Your task to perform on an android device: What's on my calendar today? Image 0: 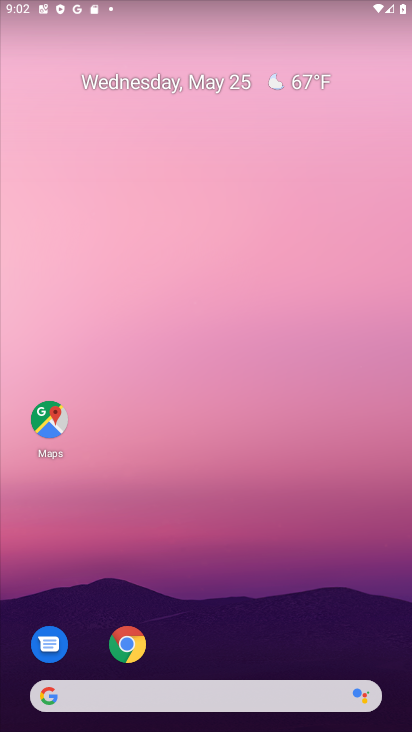
Step 0: drag from (213, 654) to (205, 70)
Your task to perform on an android device: What's on my calendar today? Image 1: 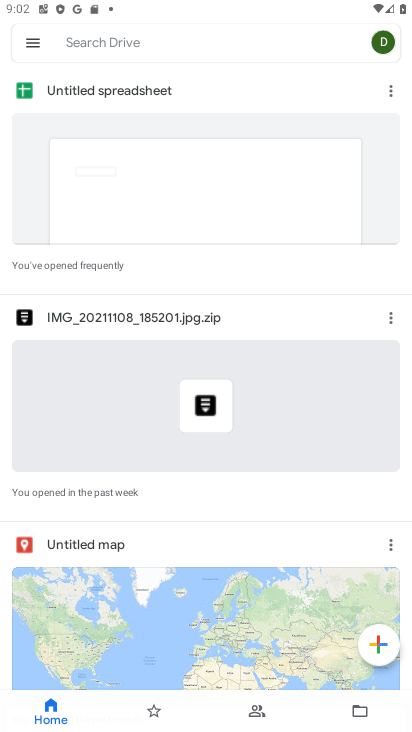
Step 1: press home button
Your task to perform on an android device: What's on my calendar today? Image 2: 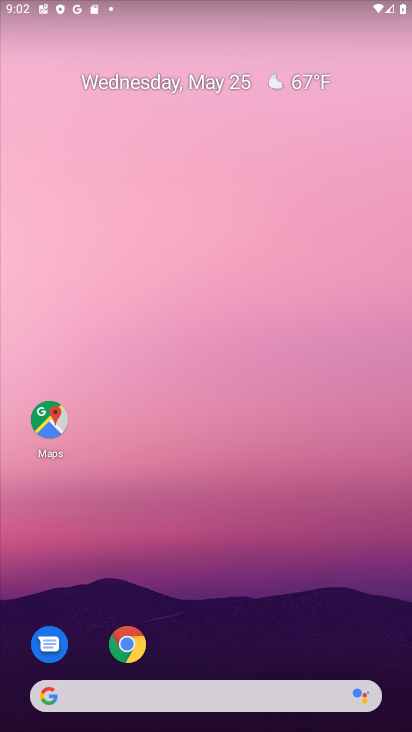
Step 2: drag from (219, 659) to (244, 102)
Your task to perform on an android device: What's on my calendar today? Image 3: 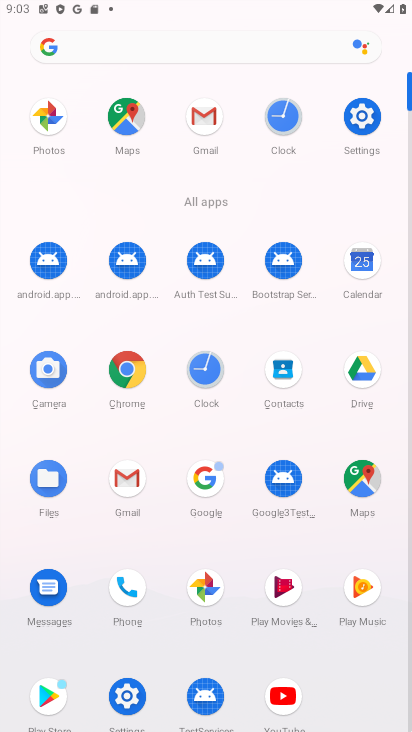
Step 3: click (363, 260)
Your task to perform on an android device: What's on my calendar today? Image 4: 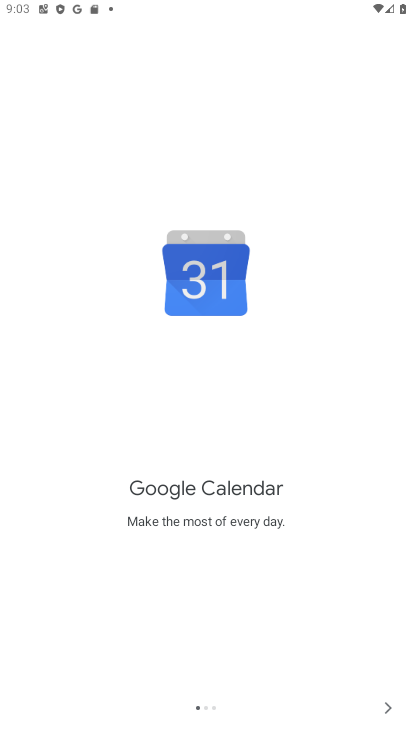
Step 4: click (379, 704)
Your task to perform on an android device: What's on my calendar today? Image 5: 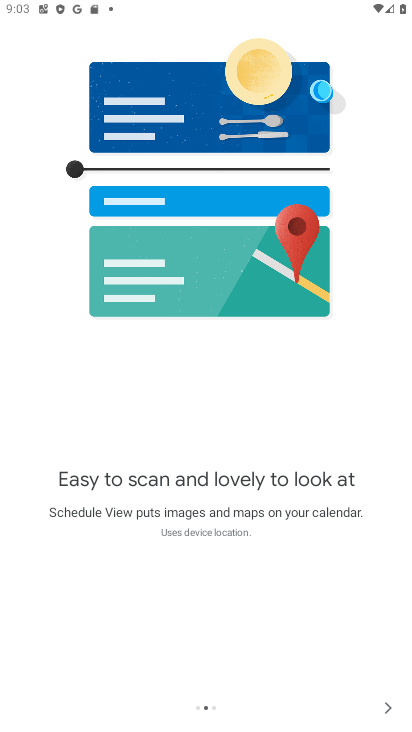
Step 5: click (379, 704)
Your task to perform on an android device: What's on my calendar today? Image 6: 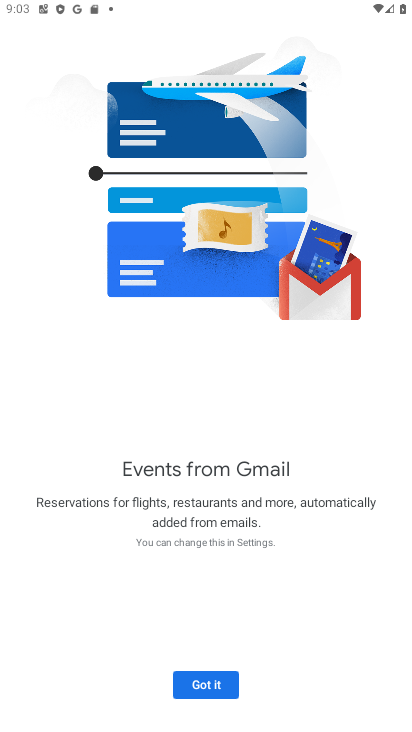
Step 6: click (208, 677)
Your task to perform on an android device: What's on my calendar today? Image 7: 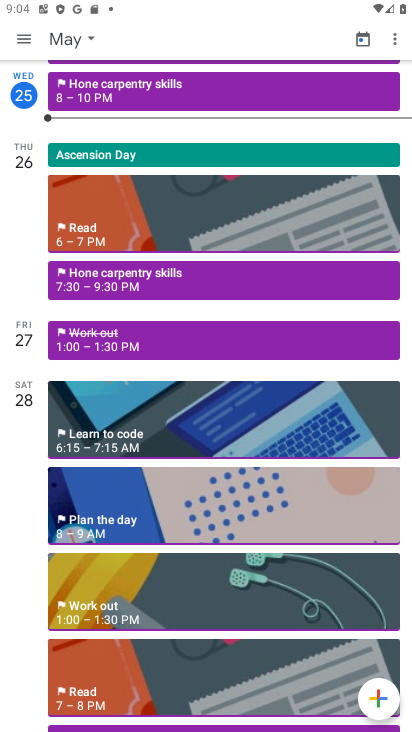
Step 7: click (29, 105)
Your task to perform on an android device: What's on my calendar today? Image 8: 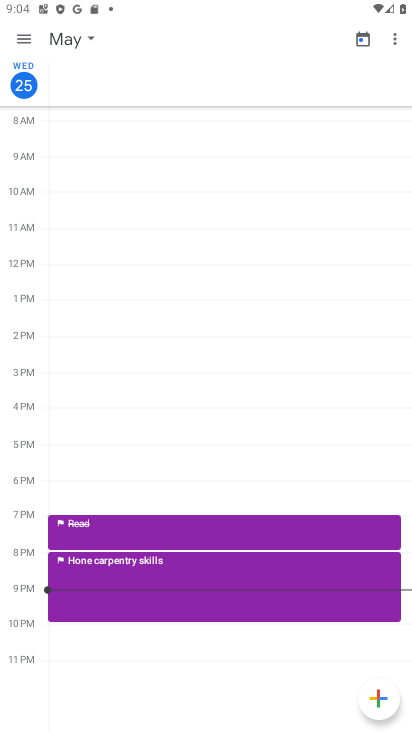
Step 8: task complete